Your task to perform on an android device: open app "Nova Launcher" Image 0: 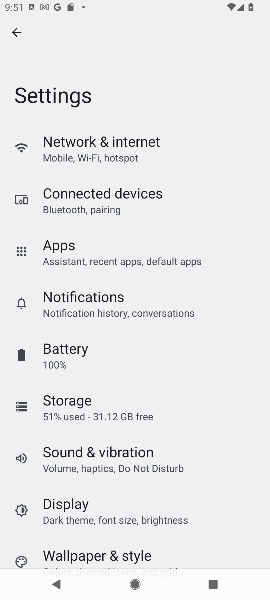
Step 0: press home button
Your task to perform on an android device: open app "Nova Launcher" Image 1: 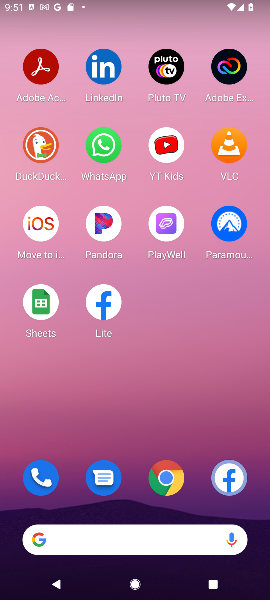
Step 1: drag from (144, 493) to (112, 237)
Your task to perform on an android device: open app "Nova Launcher" Image 2: 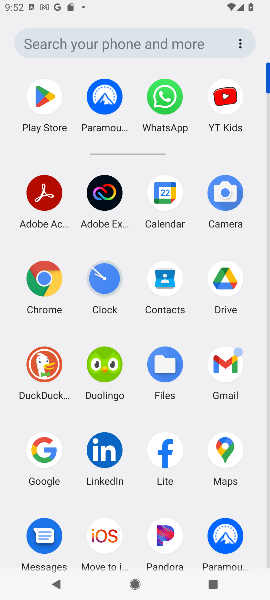
Step 2: click (36, 120)
Your task to perform on an android device: open app "Nova Launcher" Image 3: 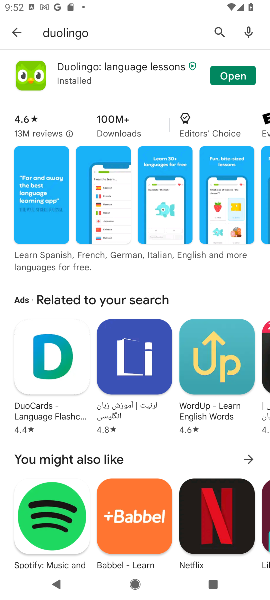
Step 3: click (218, 42)
Your task to perform on an android device: open app "Nova Launcher" Image 4: 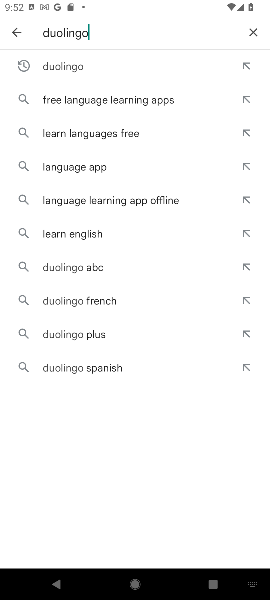
Step 4: click (248, 30)
Your task to perform on an android device: open app "Nova Launcher" Image 5: 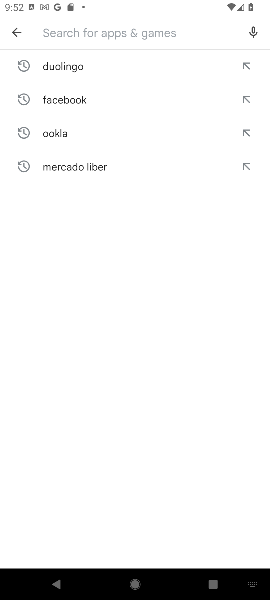
Step 5: type "nova launcher"
Your task to perform on an android device: open app "Nova Launcher" Image 6: 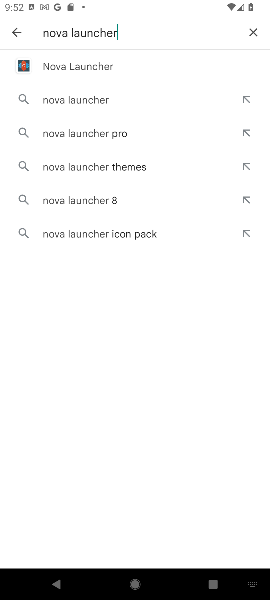
Step 6: click (143, 53)
Your task to perform on an android device: open app "Nova Launcher" Image 7: 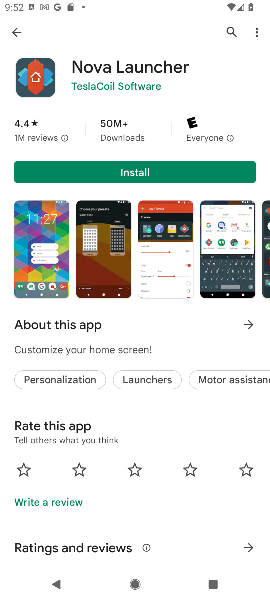
Step 7: click (166, 172)
Your task to perform on an android device: open app "Nova Launcher" Image 8: 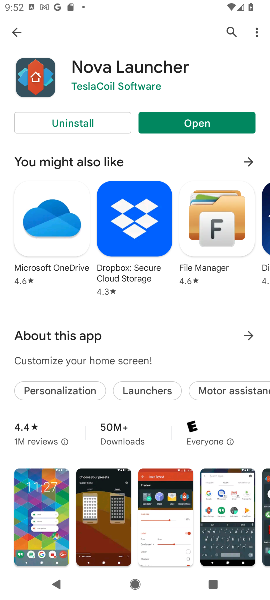
Step 8: click (196, 132)
Your task to perform on an android device: open app "Nova Launcher" Image 9: 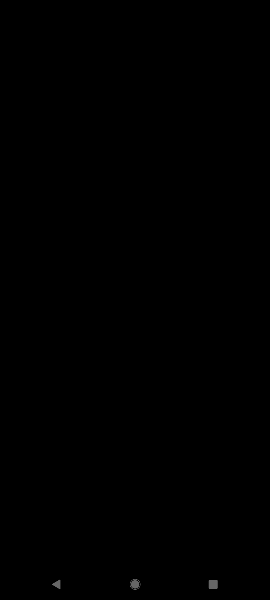
Step 9: task complete